Your task to perform on an android device: Search for sushi restaurants on Maps Image 0: 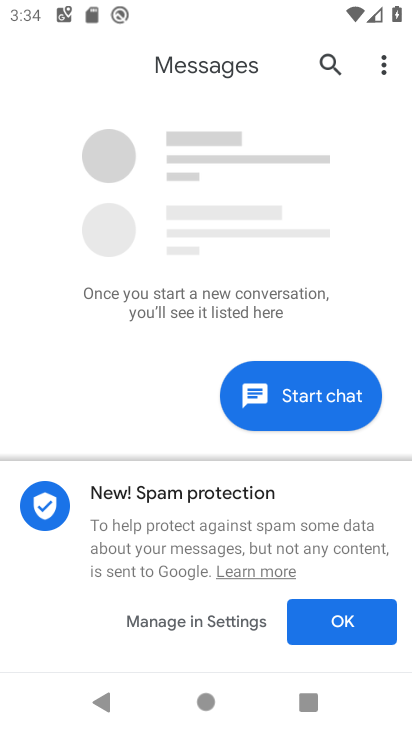
Step 0: press home button
Your task to perform on an android device: Search for sushi restaurants on Maps Image 1: 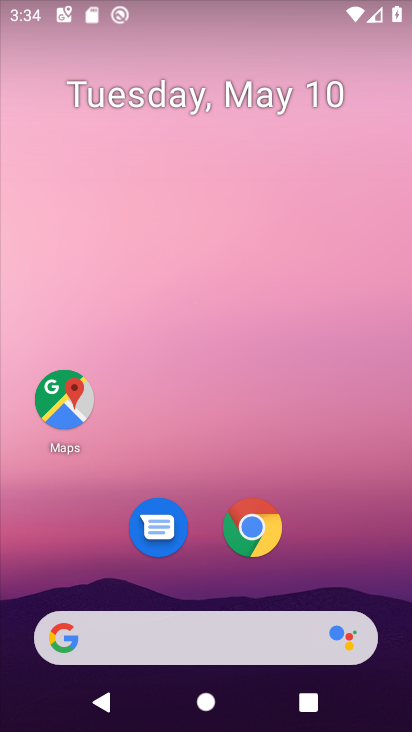
Step 1: click (63, 399)
Your task to perform on an android device: Search for sushi restaurants on Maps Image 2: 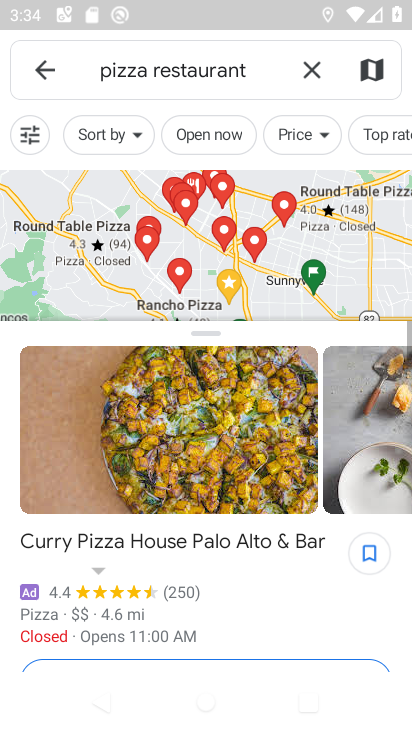
Step 2: click (304, 65)
Your task to perform on an android device: Search for sushi restaurants on Maps Image 3: 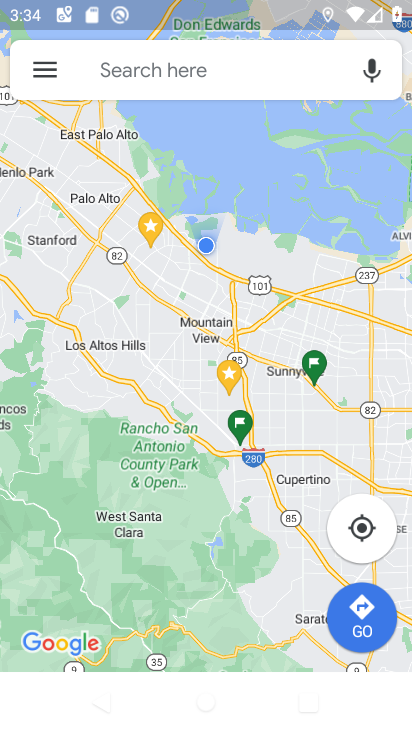
Step 3: click (138, 74)
Your task to perform on an android device: Search for sushi restaurants on Maps Image 4: 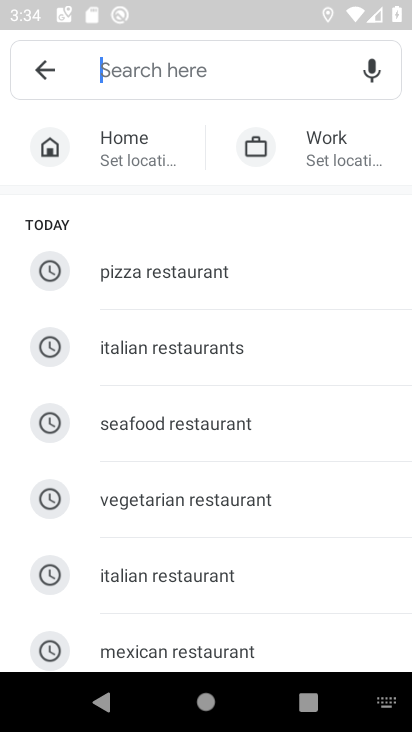
Step 4: type "sushi restaurants"
Your task to perform on an android device: Search for sushi restaurants on Maps Image 5: 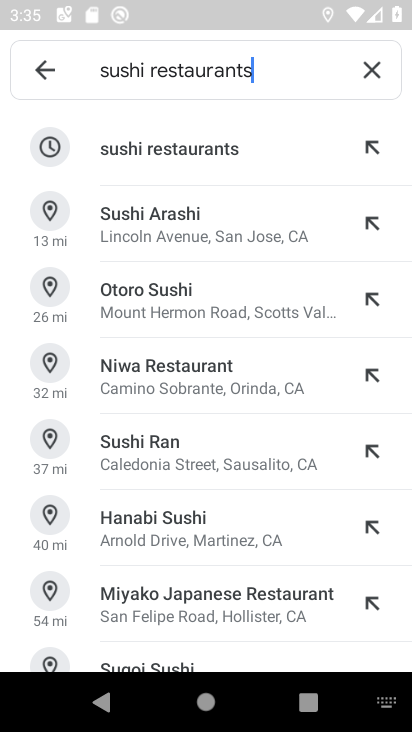
Step 5: click (142, 150)
Your task to perform on an android device: Search for sushi restaurants on Maps Image 6: 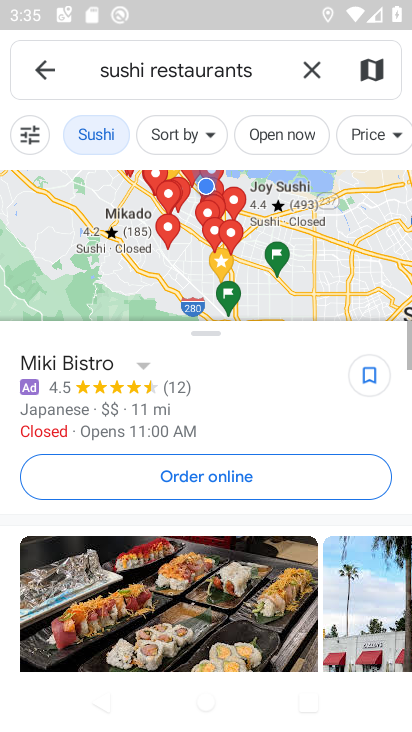
Step 6: task complete